Your task to perform on an android device: When is my next appointment? Image 0: 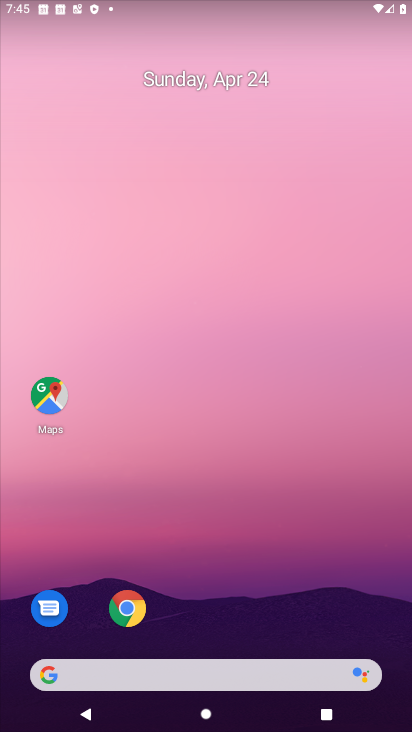
Step 0: drag from (215, 620) to (265, 148)
Your task to perform on an android device: When is my next appointment? Image 1: 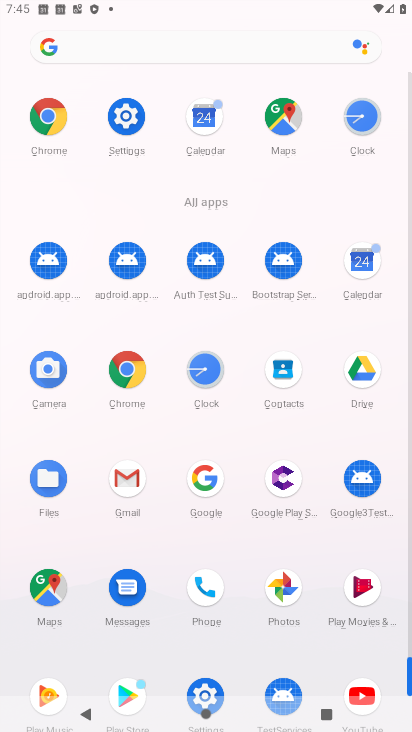
Step 1: click (379, 248)
Your task to perform on an android device: When is my next appointment? Image 2: 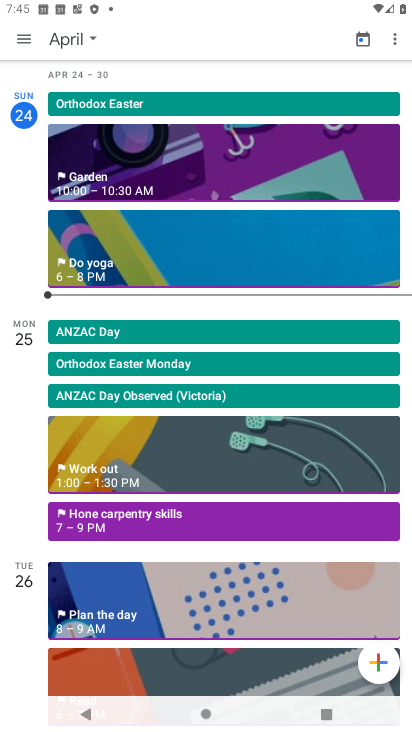
Step 2: task complete